Your task to perform on an android device: delete a single message in the gmail app Image 0: 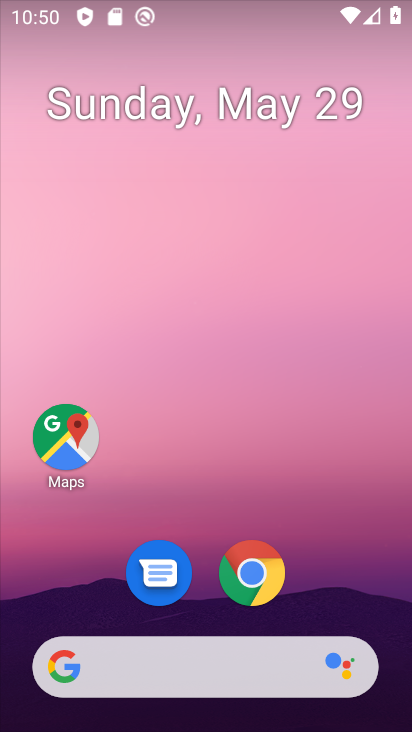
Step 0: drag from (339, 581) to (238, 147)
Your task to perform on an android device: delete a single message in the gmail app Image 1: 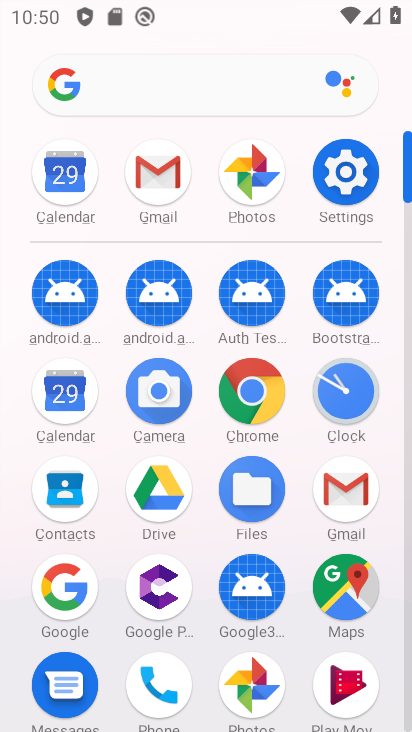
Step 1: click (152, 183)
Your task to perform on an android device: delete a single message in the gmail app Image 2: 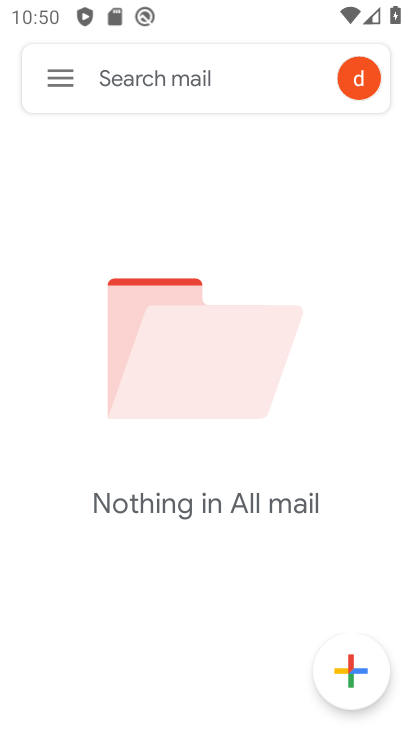
Step 2: click (58, 71)
Your task to perform on an android device: delete a single message in the gmail app Image 3: 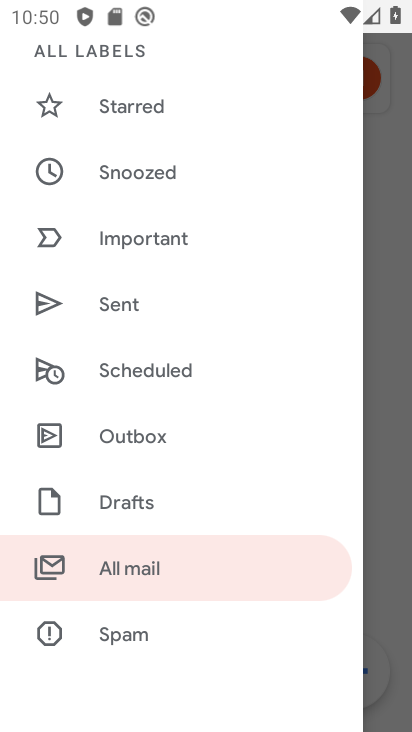
Step 3: click (166, 573)
Your task to perform on an android device: delete a single message in the gmail app Image 4: 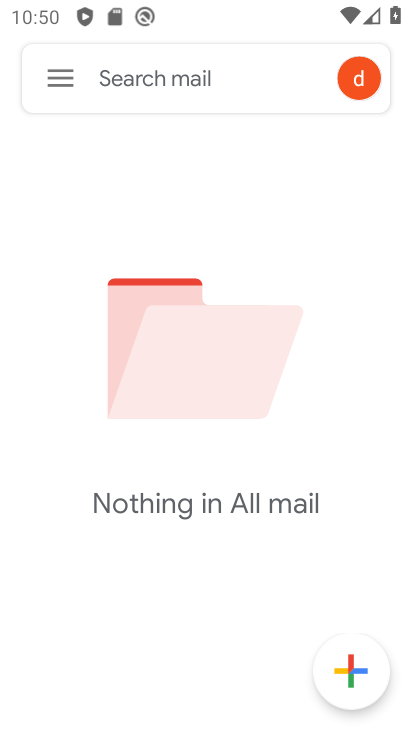
Step 4: task complete